Your task to perform on an android device: toggle javascript in the chrome app Image 0: 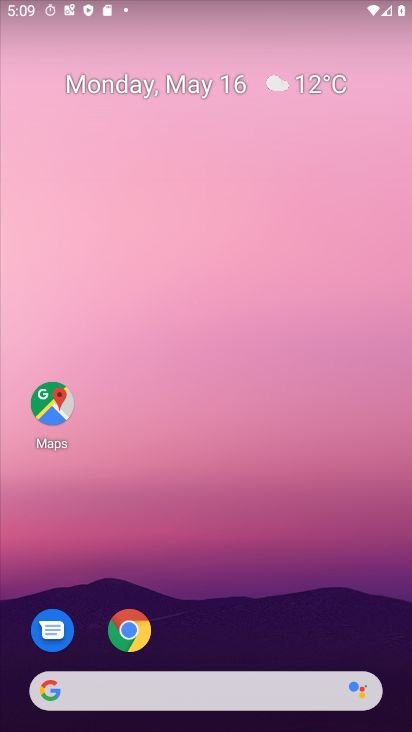
Step 0: click (118, 630)
Your task to perform on an android device: toggle javascript in the chrome app Image 1: 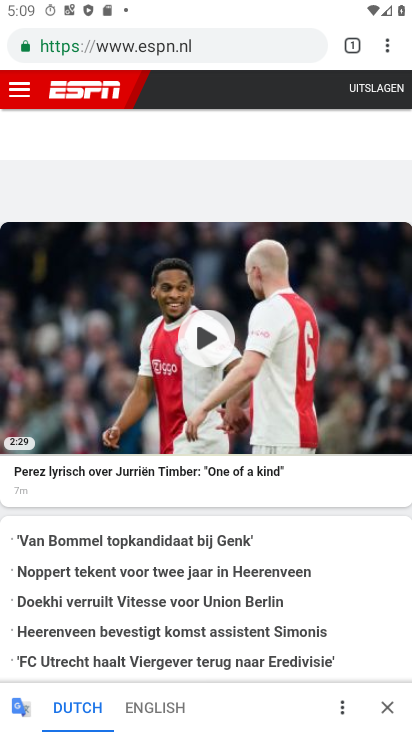
Step 1: drag from (390, 43) to (235, 548)
Your task to perform on an android device: toggle javascript in the chrome app Image 2: 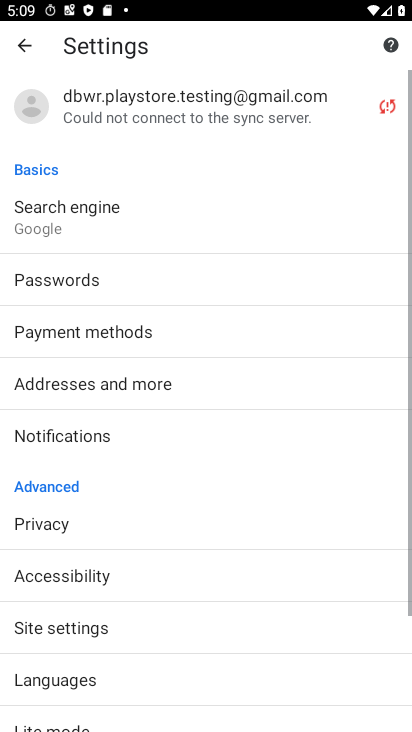
Step 2: drag from (179, 618) to (223, 260)
Your task to perform on an android device: toggle javascript in the chrome app Image 3: 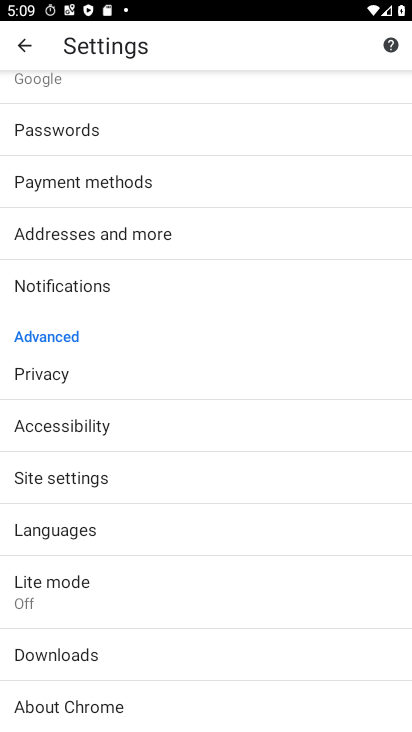
Step 3: click (116, 482)
Your task to perform on an android device: toggle javascript in the chrome app Image 4: 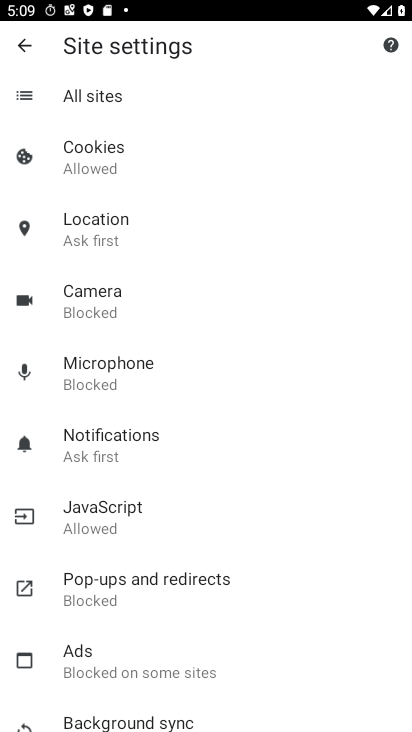
Step 4: click (173, 515)
Your task to perform on an android device: toggle javascript in the chrome app Image 5: 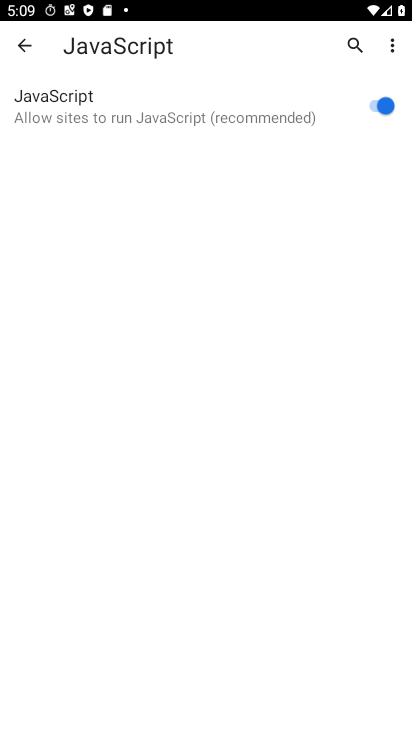
Step 5: click (383, 101)
Your task to perform on an android device: toggle javascript in the chrome app Image 6: 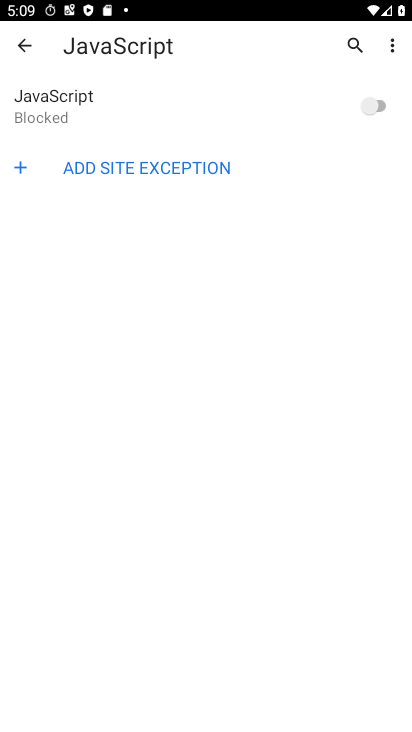
Step 6: task complete